Your task to perform on an android device: turn on bluetooth scan Image 0: 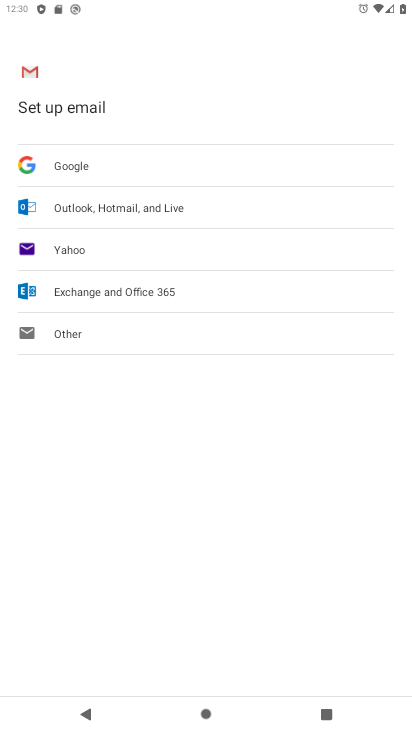
Step 0: press home button
Your task to perform on an android device: turn on bluetooth scan Image 1: 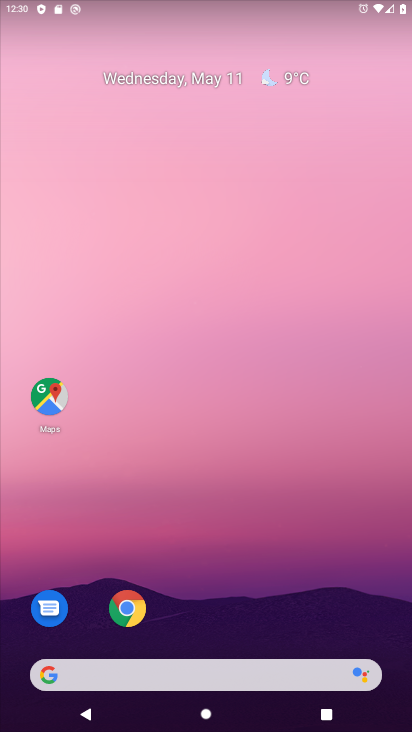
Step 1: drag from (244, 683) to (215, 142)
Your task to perform on an android device: turn on bluetooth scan Image 2: 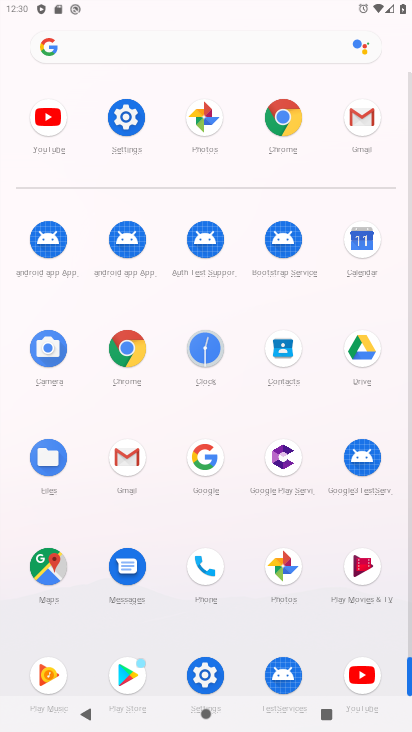
Step 2: click (136, 133)
Your task to perform on an android device: turn on bluetooth scan Image 3: 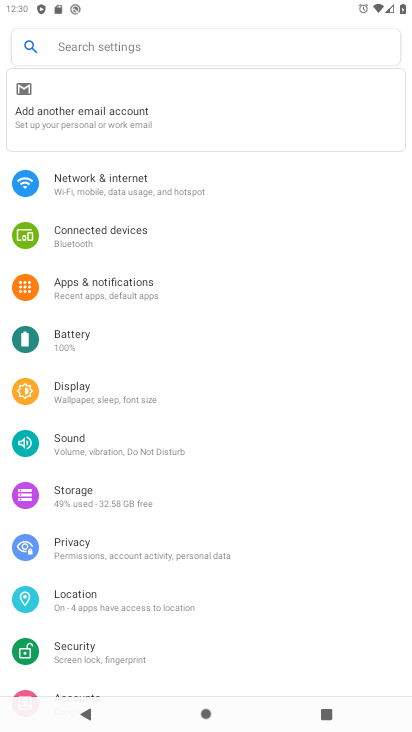
Step 3: click (160, 235)
Your task to perform on an android device: turn on bluetooth scan Image 4: 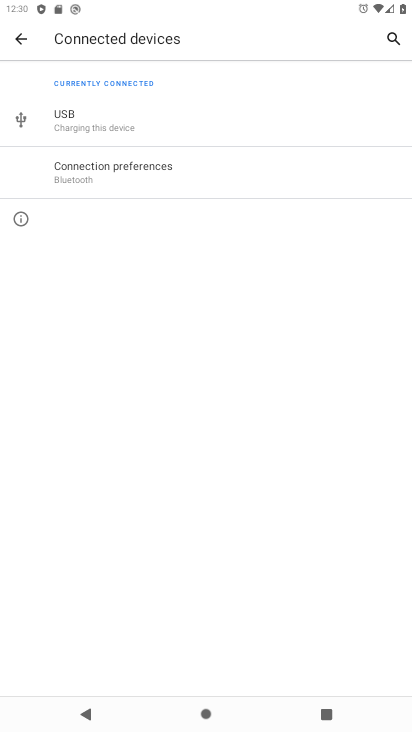
Step 4: click (203, 181)
Your task to perform on an android device: turn on bluetooth scan Image 5: 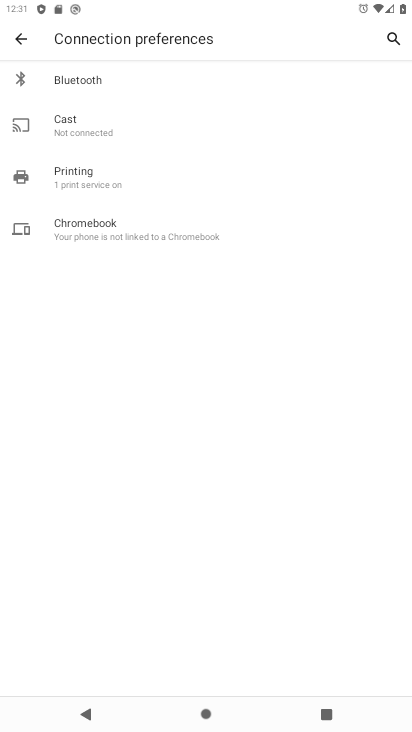
Step 5: click (229, 73)
Your task to perform on an android device: turn on bluetooth scan Image 6: 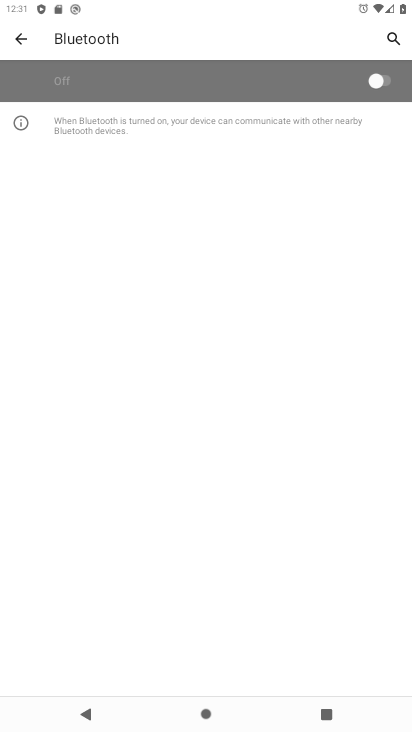
Step 6: click (355, 73)
Your task to perform on an android device: turn on bluetooth scan Image 7: 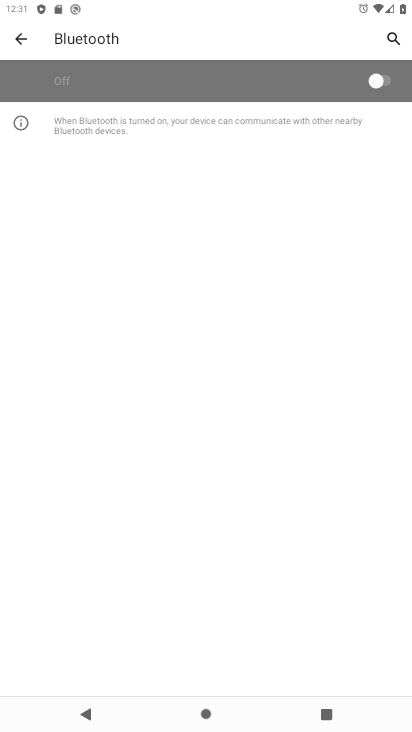
Step 7: task complete